Your task to perform on an android device: Go to internet settings Image 0: 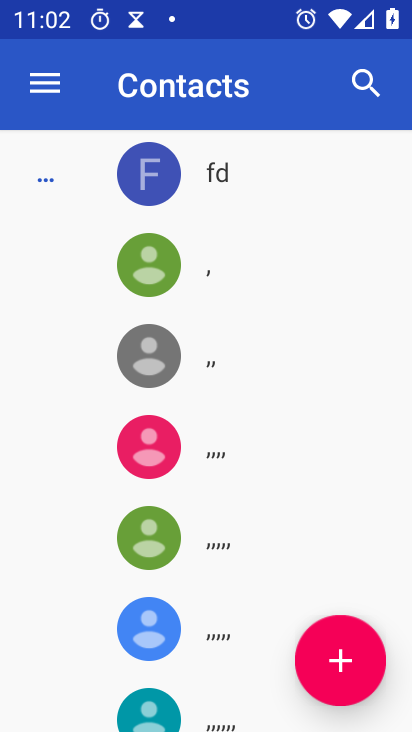
Step 0: press home button
Your task to perform on an android device: Go to internet settings Image 1: 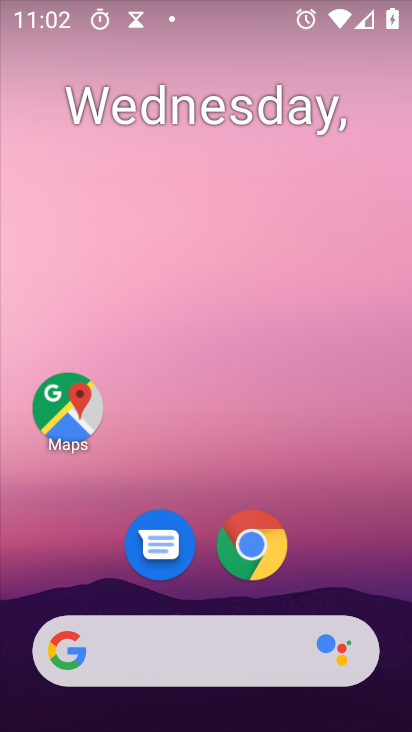
Step 1: drag from (163, 672) to (343, 105)
Your task to perform on an android device: Go to internet settings Image 2: 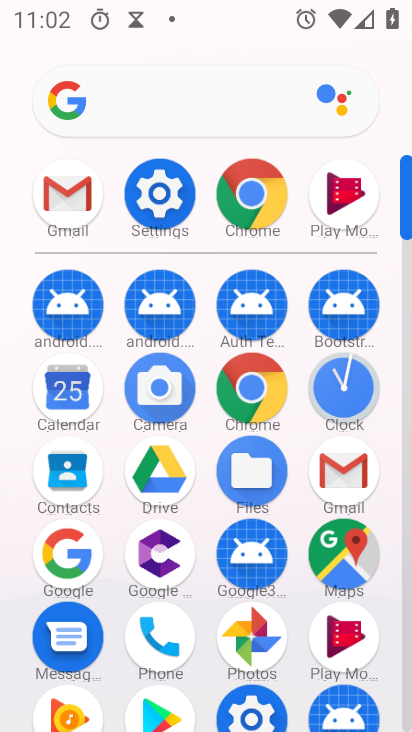
Step 2: click (146, 213)
Your task to perform on an android device: Go to internet settings Image 3: 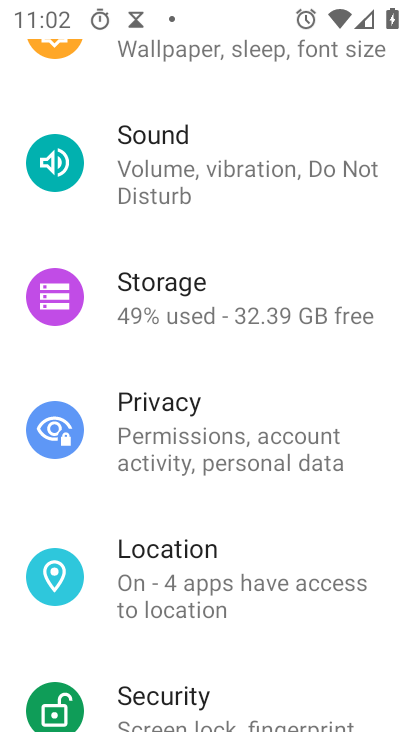
Step 3: drag from (312, 134) to (275, 596)
Your task to perform on an android device: Go to internet settings Image 4: 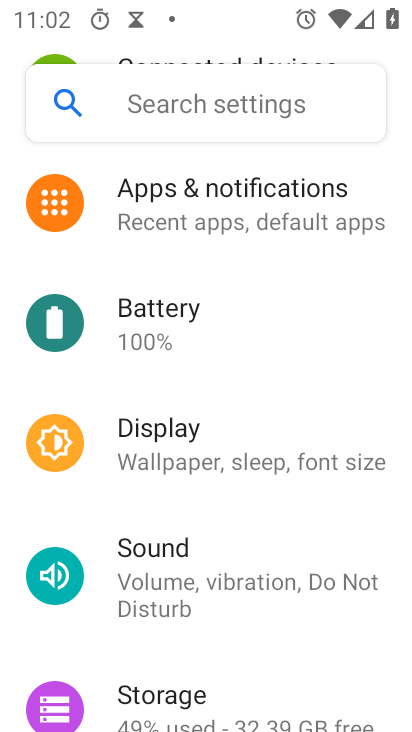
Step 4: drag from (288, 283) to (247, 650)
Your task to perform on an android device: Go to internet settings Image 5: 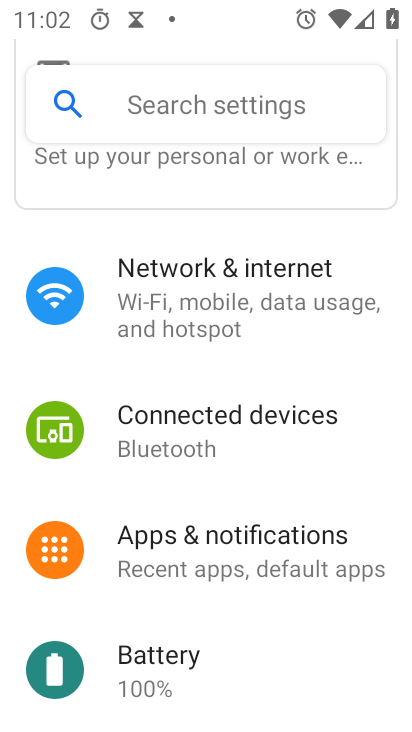
Step 5: click (228, 291)
Your task to perform on an android device: Go to internet settings Image 6: 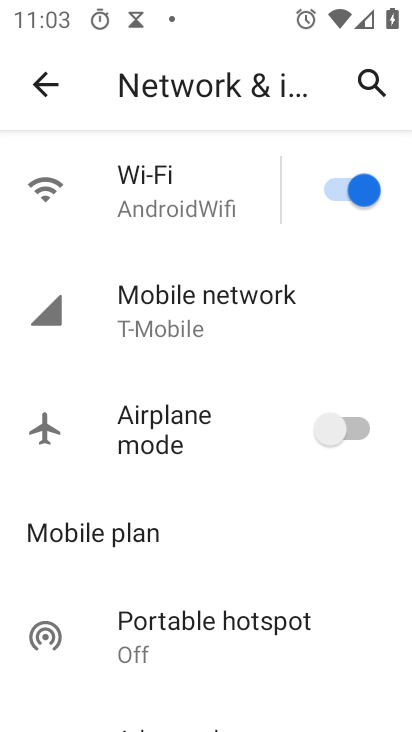
Step 6: task complete